Your task to perform on an android device: turn on showing notifications on the lock screen Image 0: 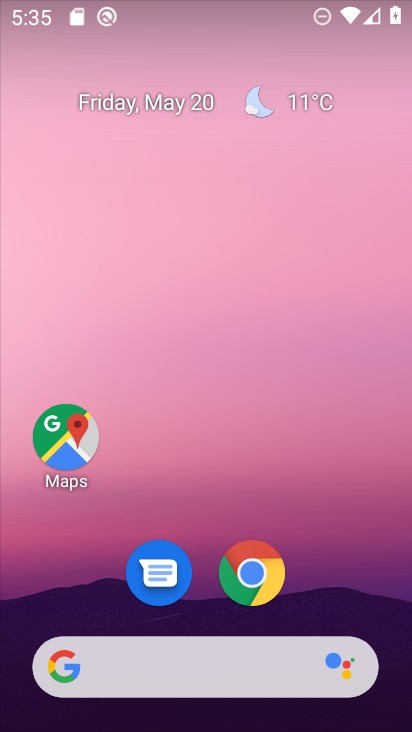
Step 0: press home button
Your task to perform on an android device: turn on showing notifications on the lock screen Image 1: 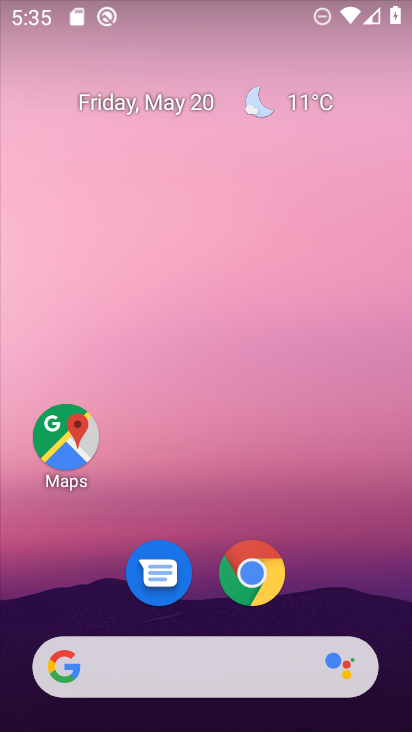
Step 1: drag from (323, 535) to (99, 6)
Your task to perform on an android device: turn on showing notifications on the lock screen Image 2: 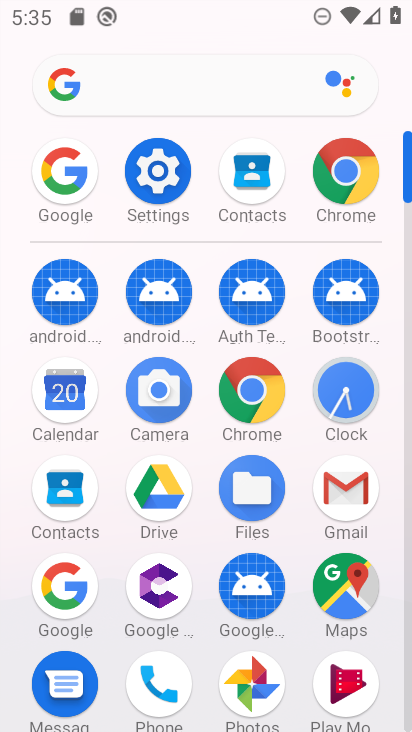
Step 2: click (155, 168)
Your task to perform on an android device: turn on showing notifications on the lock screen Image 3: 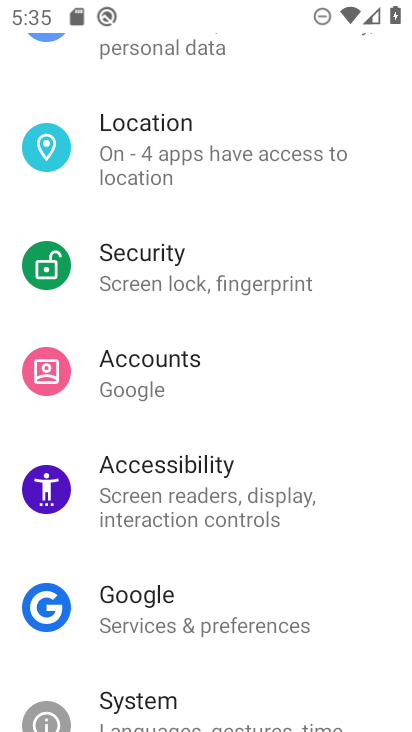
Step 3: drag from (182, 363) to (144, 152)
Your task to perform on an android device: turn on showing notifications on the lock screen Image 4: 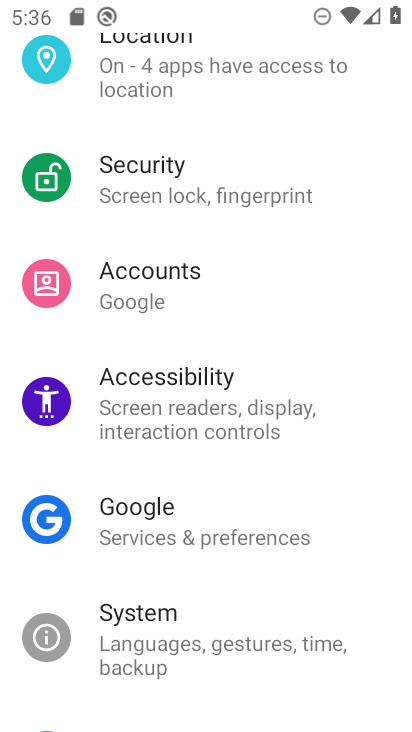
Step 4: drag from (230, 227) to (157, 720)
Your task to perform on an android device: turn on showing notifications on the lock screen Image 5: 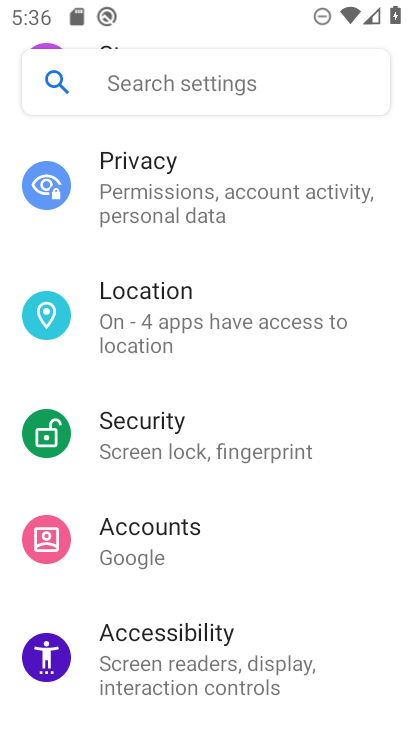
Step 5: drag from (231, 194) to (185, 673)
Your task to perform on an android device: turn on showing notifications on the lock screen Image 6: 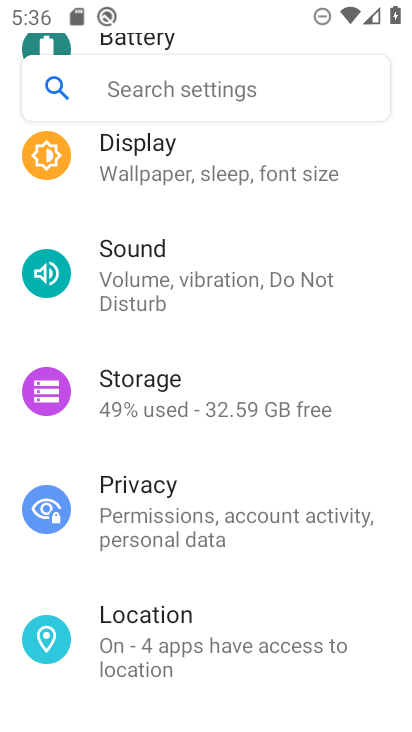
Step 6: drag from (245, 224) to (185, 720)
Your task to perform on an android device: turn on showing notifications on the lock screen Image 7: 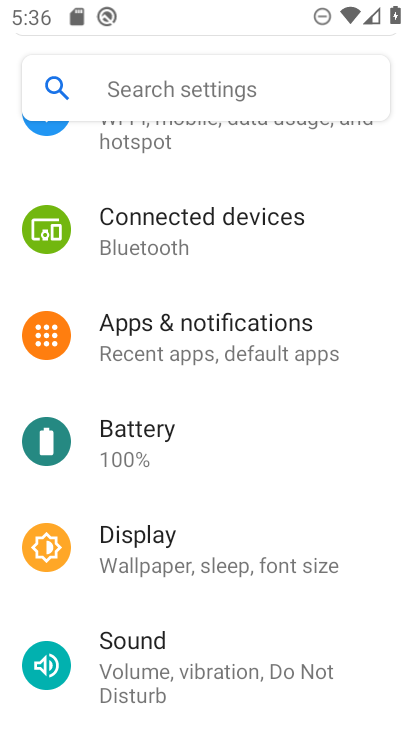
Step 7: drag from (214, 337) to (167, 634)
Your task to perform on an android device: turn on showing notifications on the lock screen Image 8: 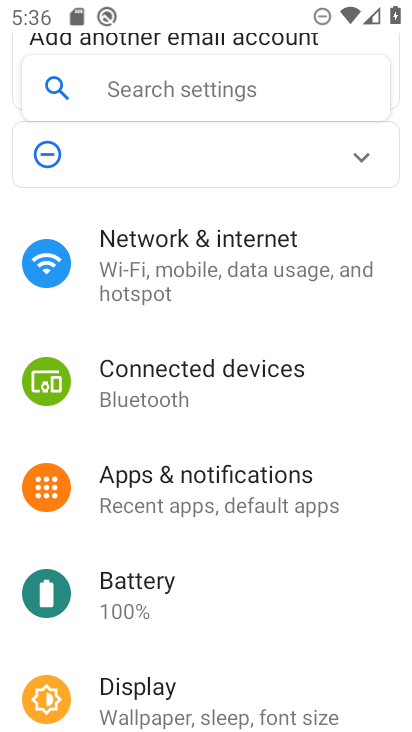
Step 8: click (213, 479)
Your task to perform on an android device: turn on showing notifications on the lock screen Image 9: 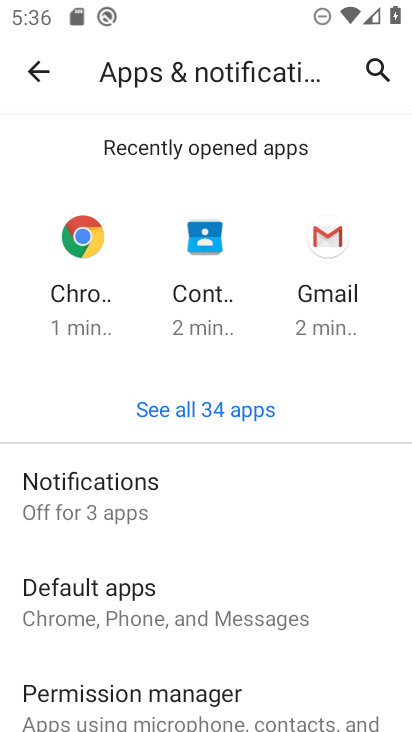
Step 9: drag from (216, 637) to (182, 232)
Your task to perform on an android device: turn on showing notifications on the lock screen Image 10: 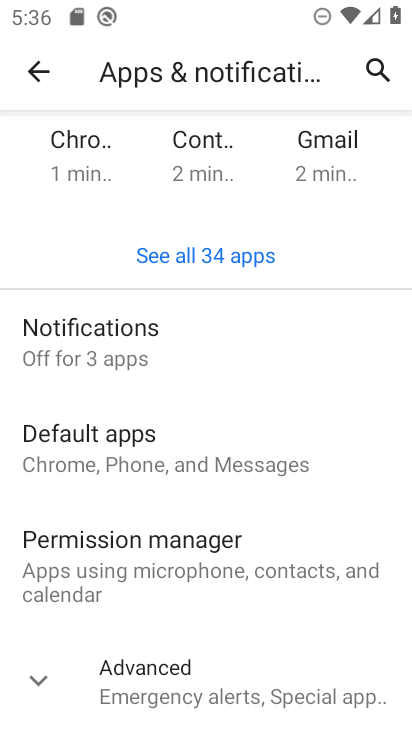
Step 10: drag from (223, 582) to (218, 295)
Your task to perform on an android device: turn on showing notifications on the lock screen Image 11: 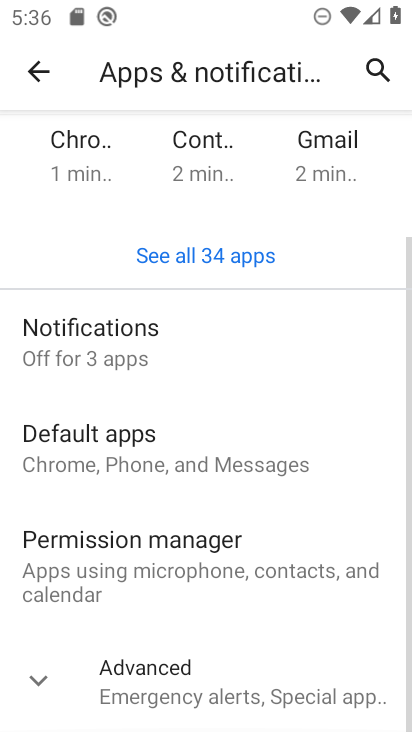
Step 11: click (173, 330)
Your task to perform on an android device: turn on showing notifications on the lock screen Image 12: 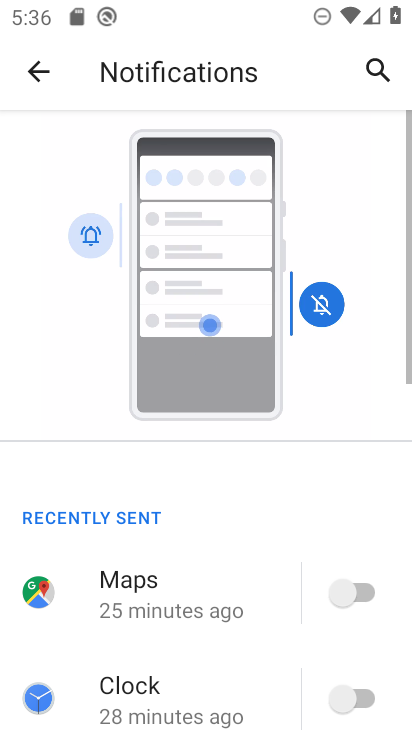
Step 12: drag from (203, 642) to (139, 49)
Your task to perform on an android device: turn on showing notifications on the lock screen Image 13: 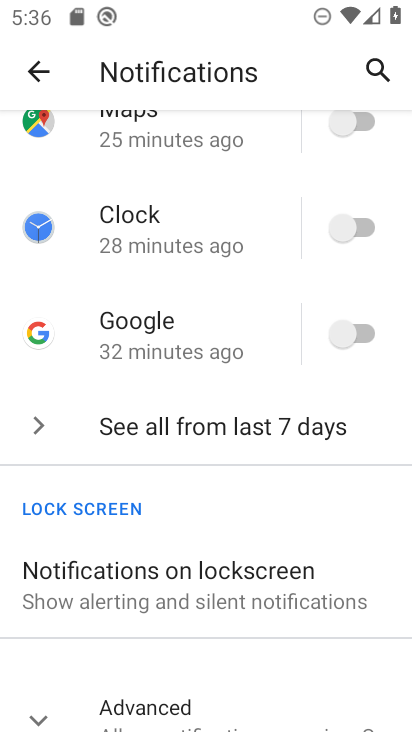
Step 13: click (191, 566)
Your task to perform on an android device: turn on showing notifications on the lock screen Image 14: 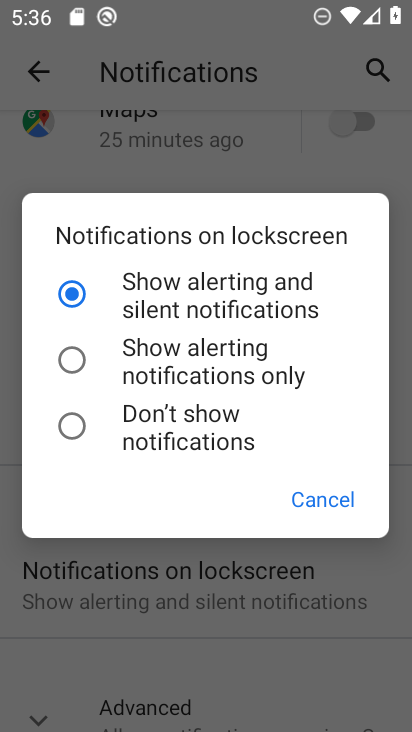
Step 14: task complete